Your task to perform on an android device: open app "Move to iOS" (install if not already installed), go to login, and select forgot password Image 0: 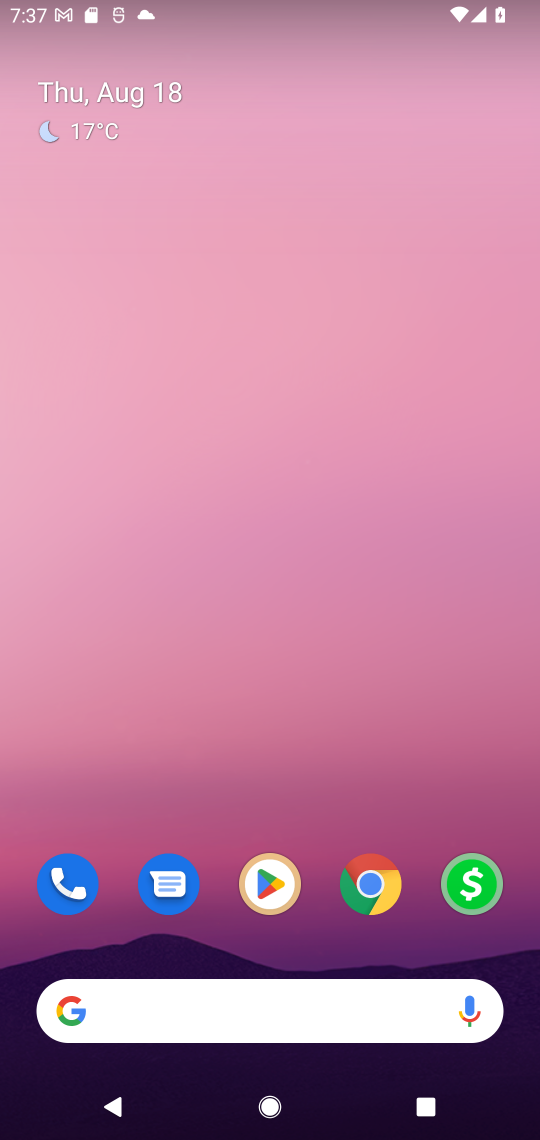
Step 0: drag from (264, 1013) to (375, 188)
Your task to perform on an android device: open app "Move to iOS" (install if not already installed), go to login, and select forgot password Image 1: 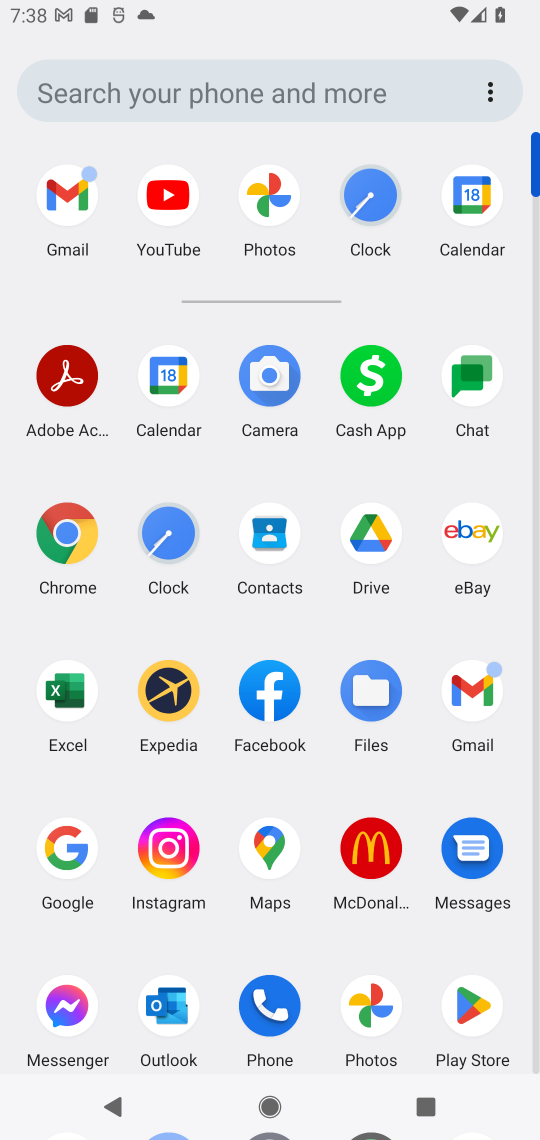
Step 1: click (475, 1006)
Your task to perform on an android device: open app "Move to iOS" (install if not already installed), go to login, and select forgot password Image 2: 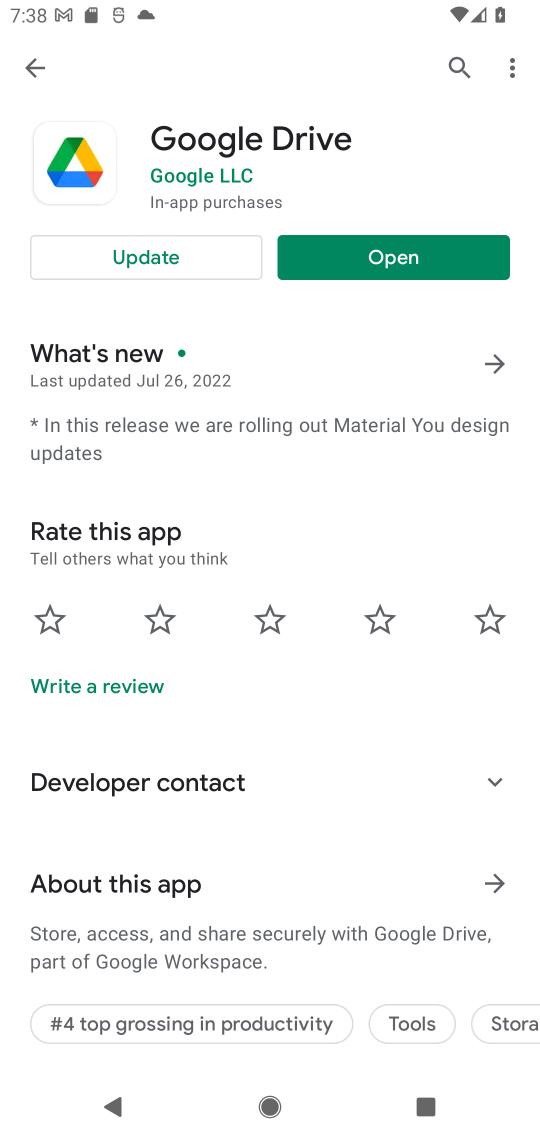
Step 2: press back button
Your task to perform on an android device: open app "Move to iOS" (install if not already installed), go to login, and select forgot password Image 3: 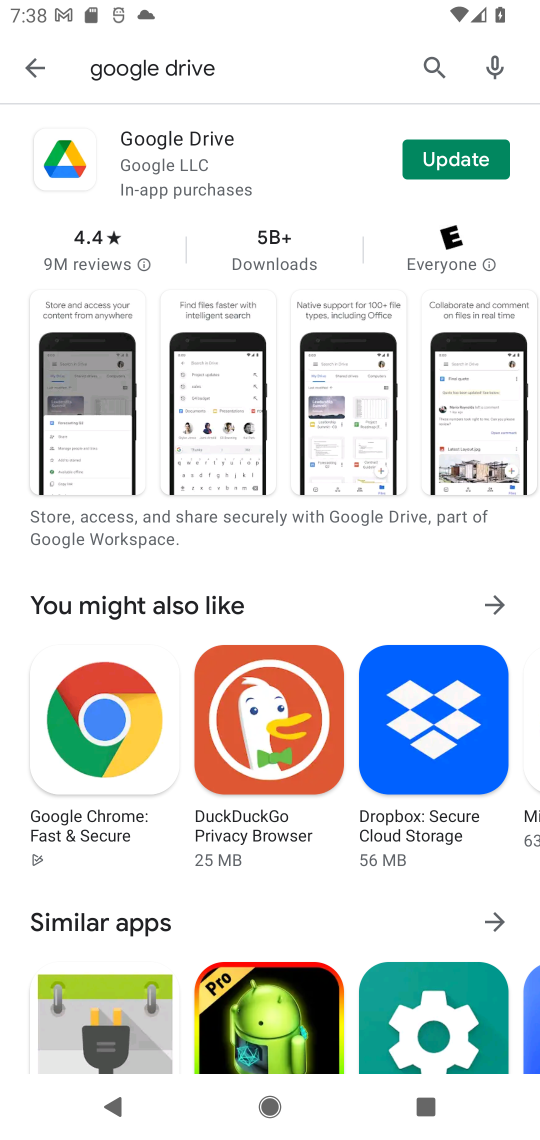
Step 3: press back button
Your task to perform on an android device: open app "Move to iOS" (install if not already installed), go to login, and select forgot password Image 4: 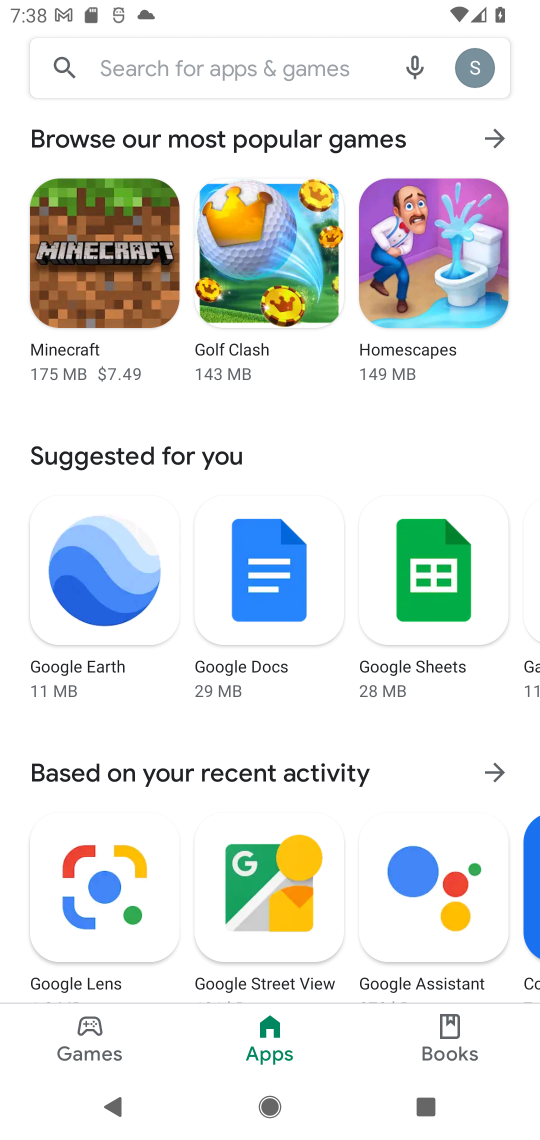
Step 4: click (259, 56)
Your task to perform on an android device: open app "Move to iOS" (install if not already installed), go to login, and select forgot password Image 5: 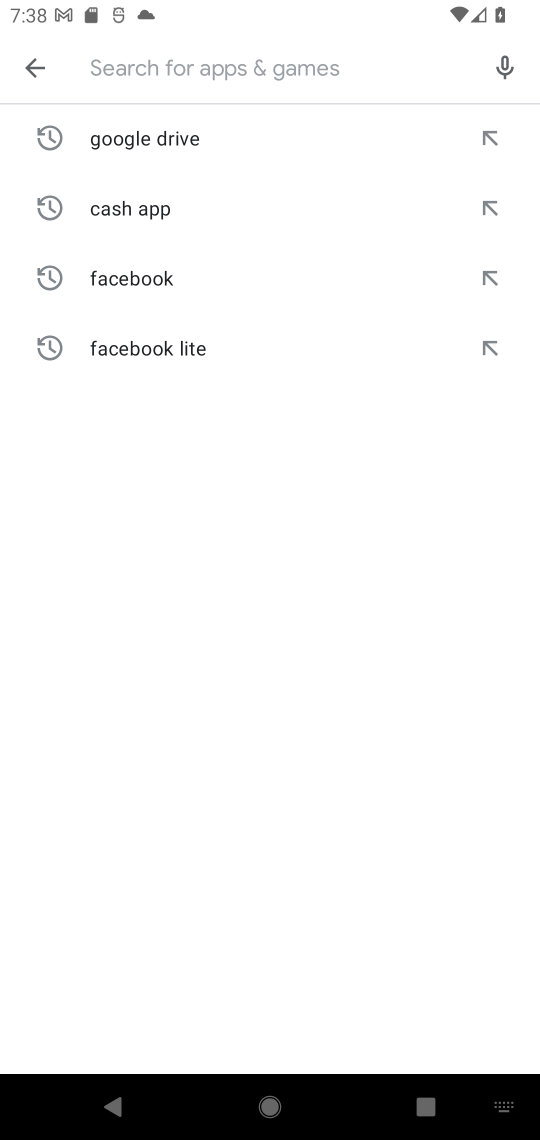
Step 5: type "Move to iOS"
Your task to perform on an android device: open app "Move to iOS" (install if not already installed), go to login, and select forgot password Image 6: 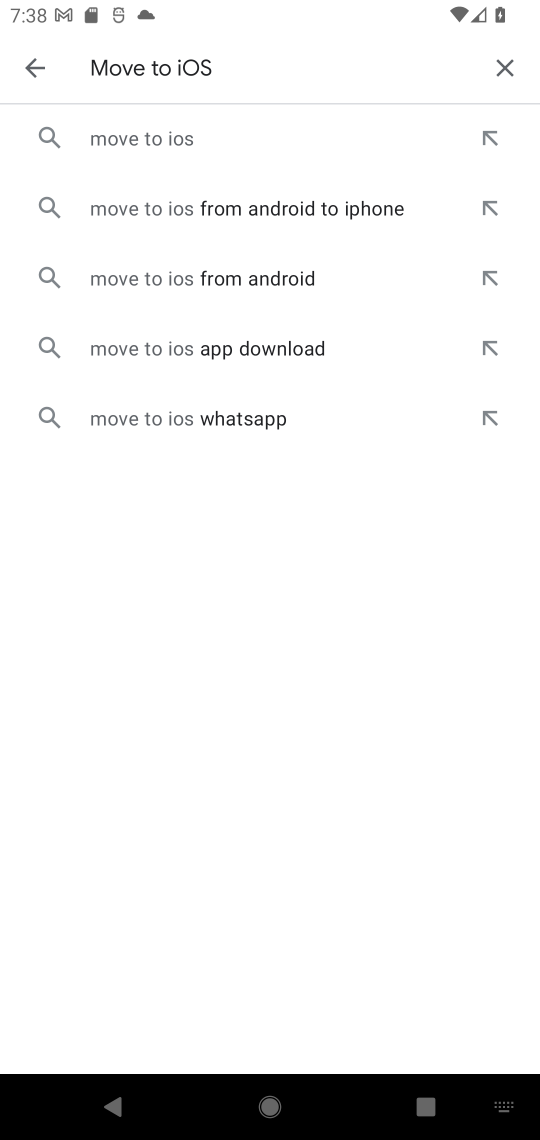
Step 6: click (127, 140)
Your task to perform on an android device: open app "Move to iOS" (install if not already installed), go to login, and select forgot password Image 7: 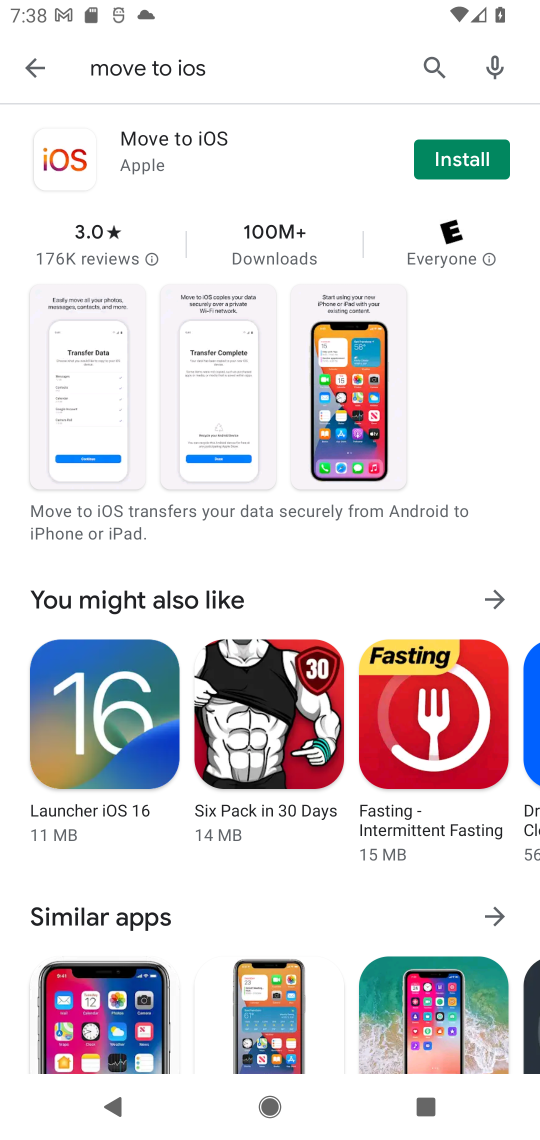
Step 7: click (472, 167)
Your task to perform on an android device: open app "Move to iOS" (install if not already installed), go to login, and select forgot password Image 8: 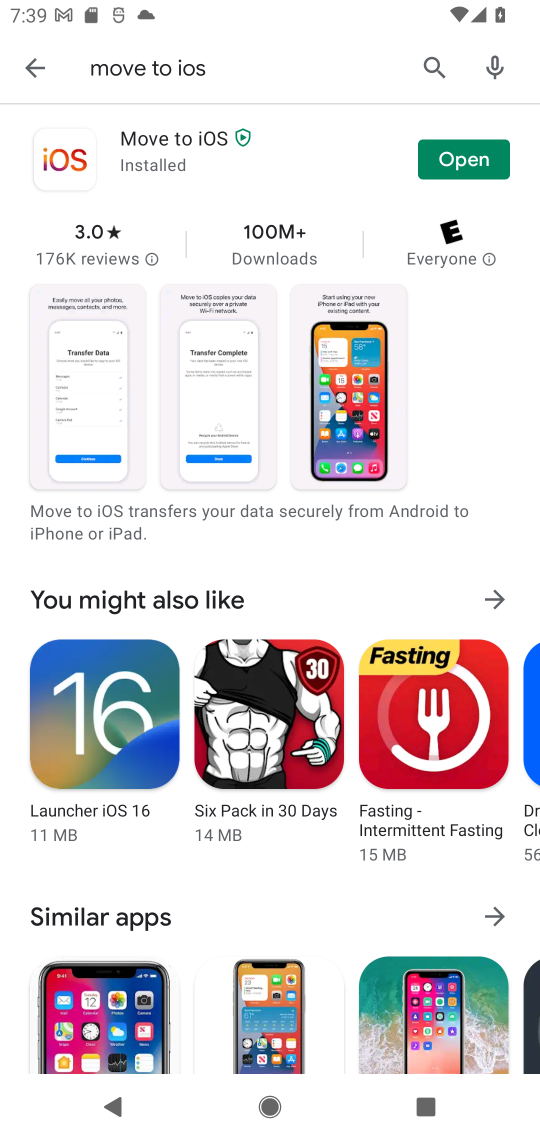
Step 8: click (463, 166)
Your task to perform on an android device: open app "Move to iOS" (install if not already installed), go to login, and select forgot password Image 9: 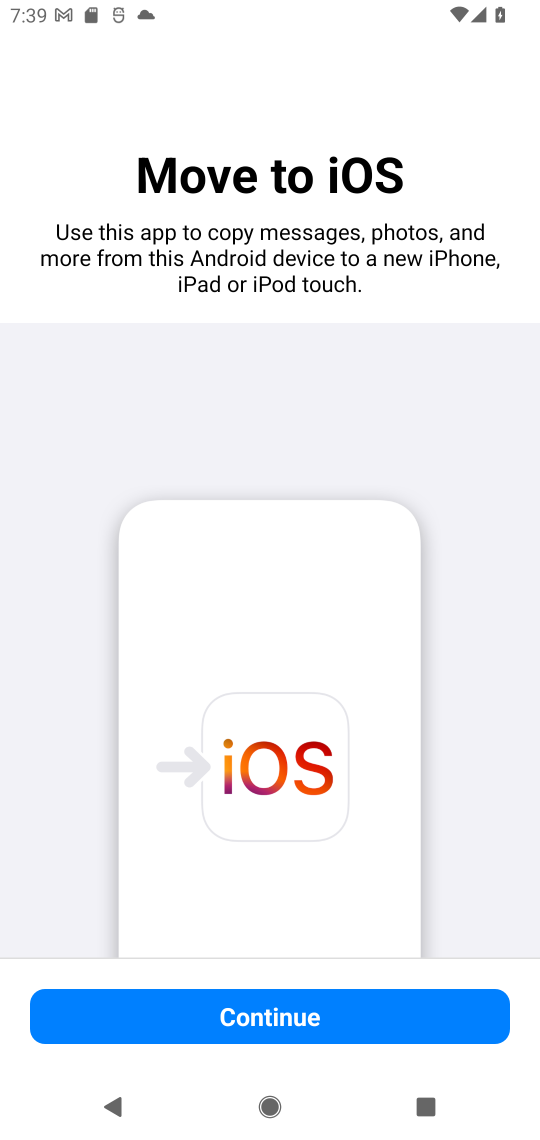
Step 9: click (272, 1019)
Your task to perform on an android device: open app "Move to iOS" (install if not already installed), go to login, and select forgot password Image 10: 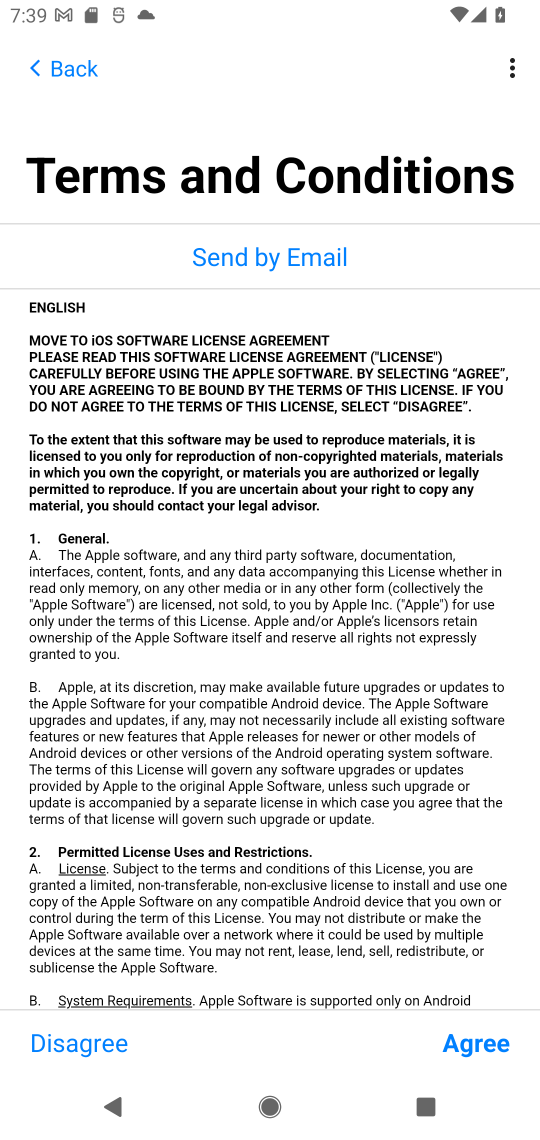
Step 10: click (471, 1045)
Your task to perform on an android device: open app "Move to iOS" (install if not already installed), go to login, and select forgot password Image 11: 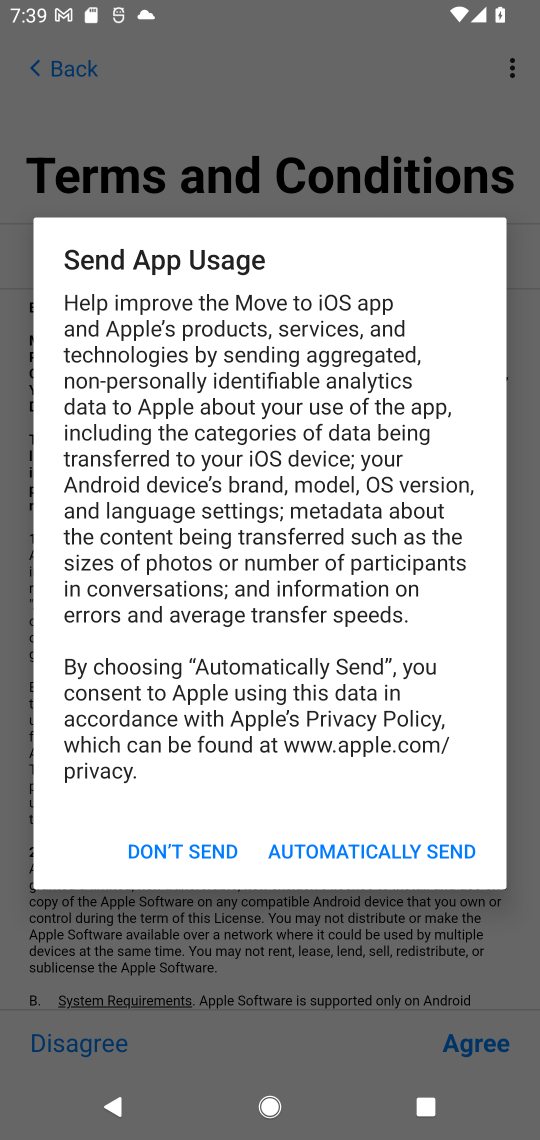
Step 11: click (209, 850)
Your task to perform on an android device: open app "Move to iOS" (install if not already installed), go to login, and select forgot password Image 12: 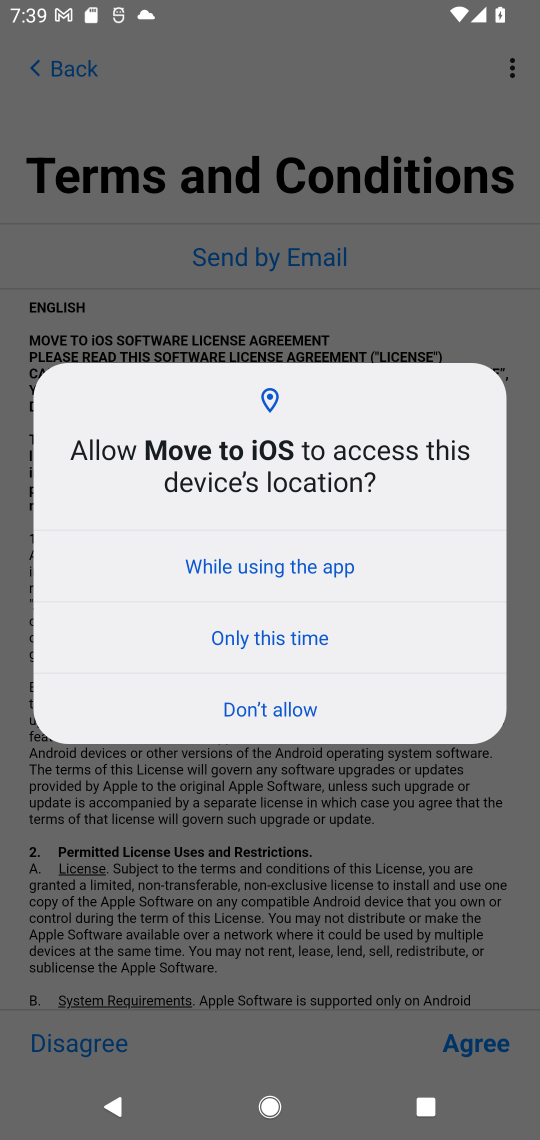
Step 12: click (332, 559)
Your task to perform on an android device: open app "Move to iOS" (install if not already installed), go to login, and select forgot password Image 13: 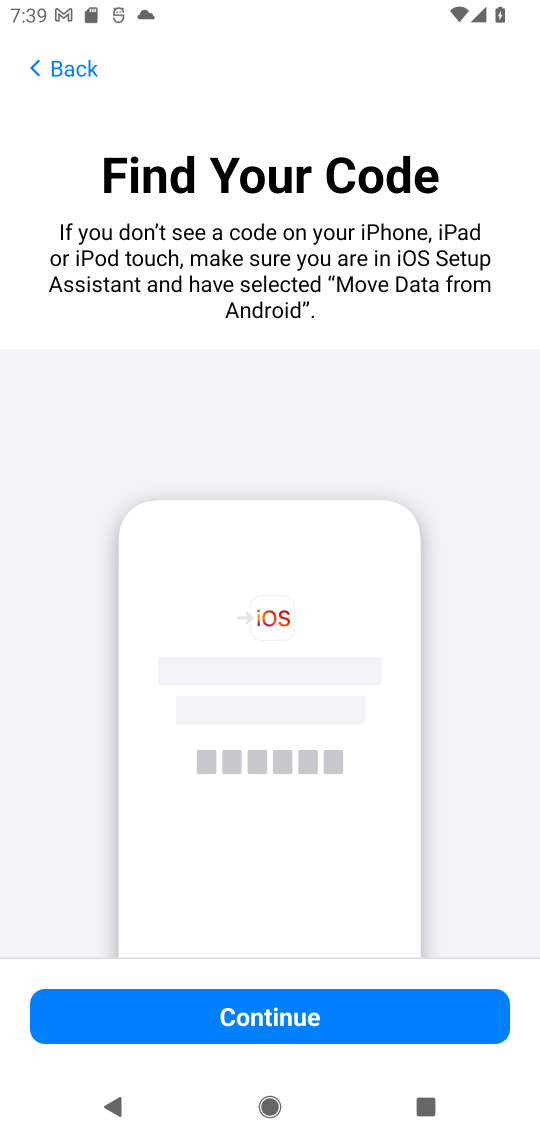
Step 13: click (260, 1016)
Your task to perform on an android device: open app "Move to iOS" (install if not already installed), go to login, and select forgot password Image 14: 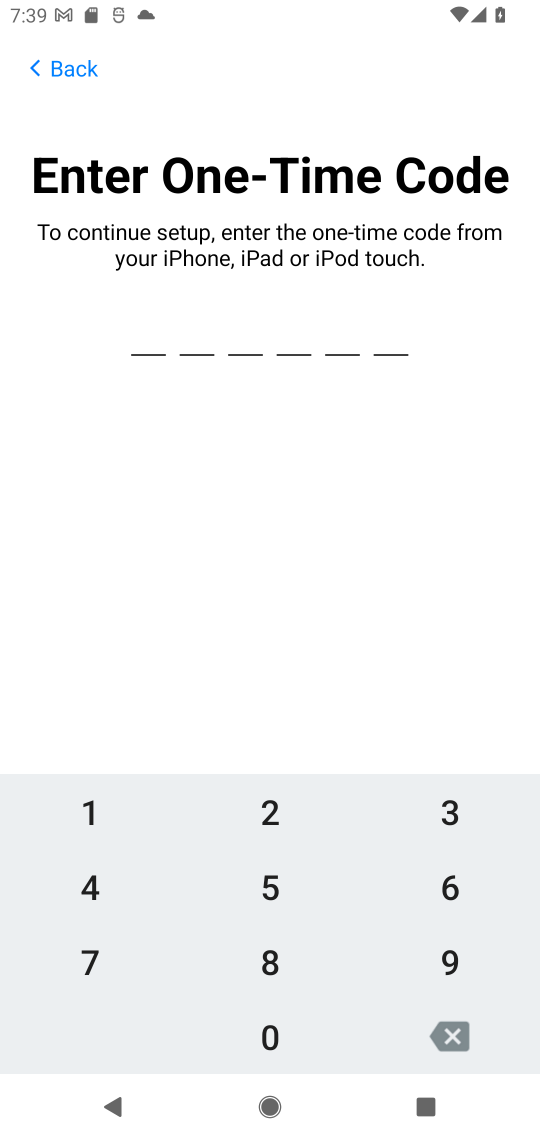
Step 14: click (69, 66)
Your task to perform on an android device: open app "Move to iOS" (install if not already installed), go to login, and select forgot password Image 15: 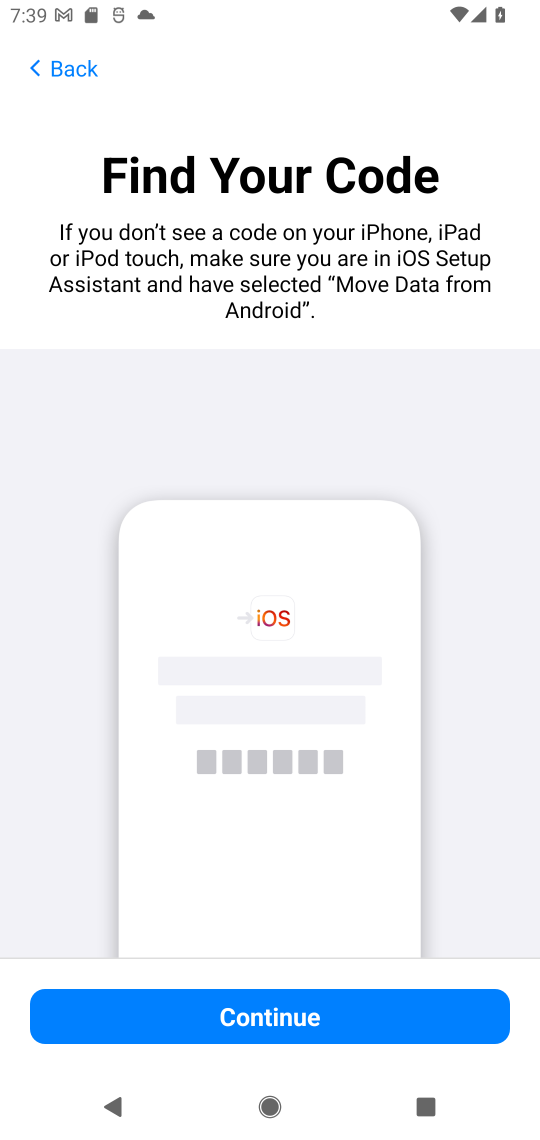
Step 15: click (69, 66)
Your task to perform on an android device: open app "Move to iOS" (install if not already installed), go to login, and select forgot password Image 16: 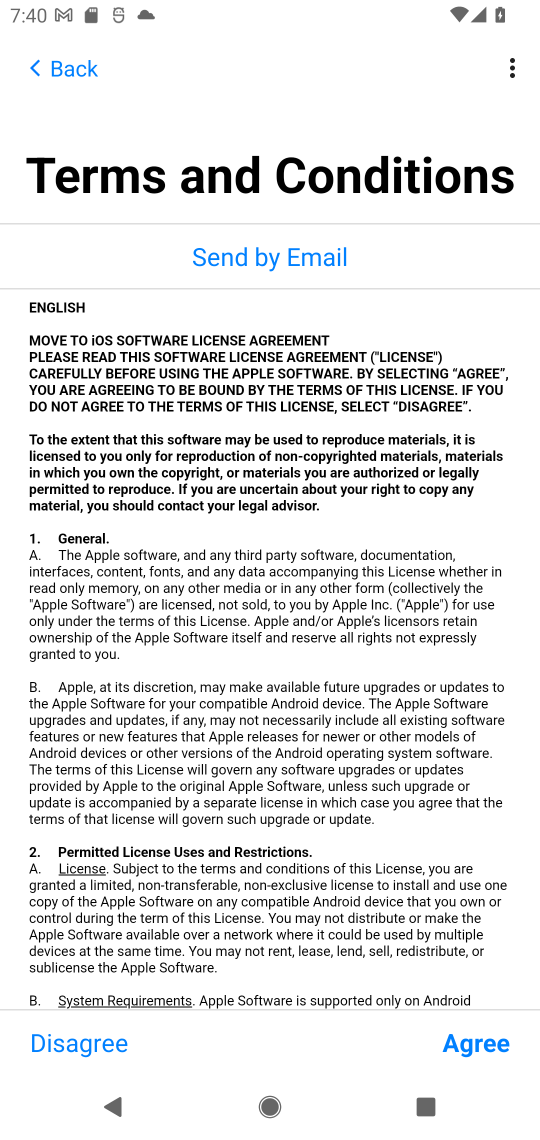
Step 16: task complete